Your task to perform on an android device: Go to calendar. Show me events next week Image 0: 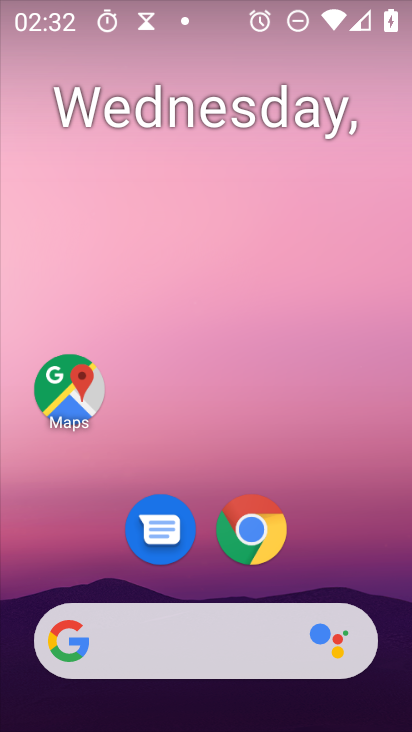
Step 0: drag from (160, 607) to (134, 8)
Your task to perform on an android device: Go to calendar. Show me events next week Image 1: 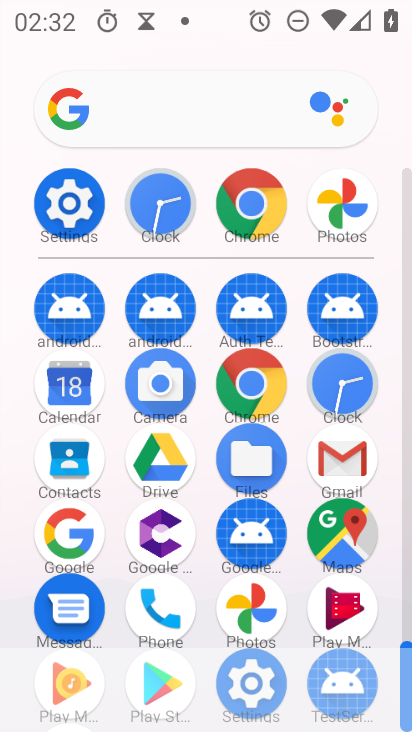
Step 1: click (81, 384)
Your task to perform on an android device: Go to calendar. Show me events next week Image 2: 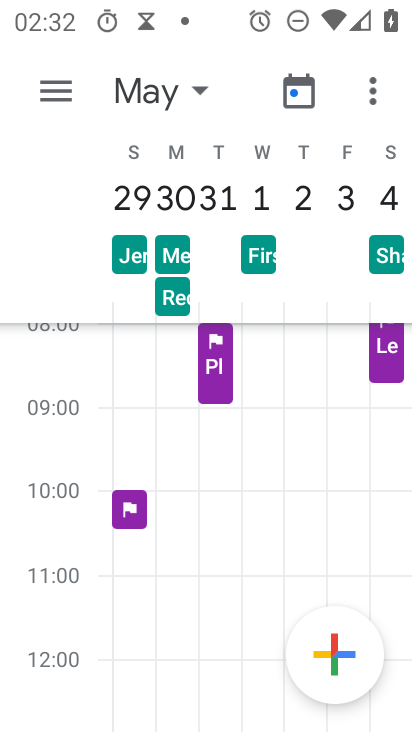
Step 2: click (196, 97)
Your task to perform on an android device: Go to calendar. Show me events next week Image 3: 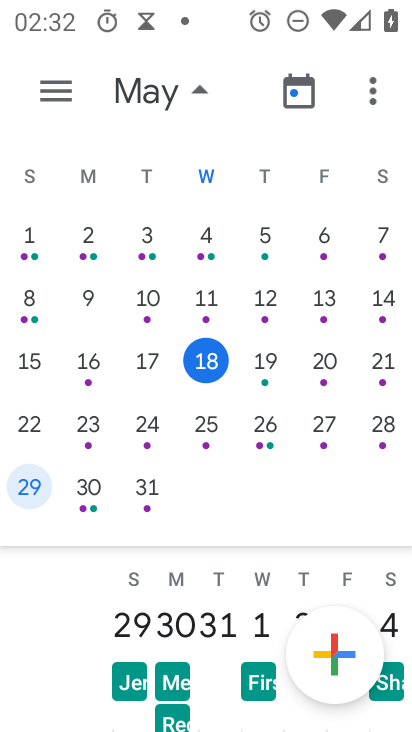
Step 3: click (263, 419)
Your task to perform on an android device: Go to calendar. Show me events next week Image 4: 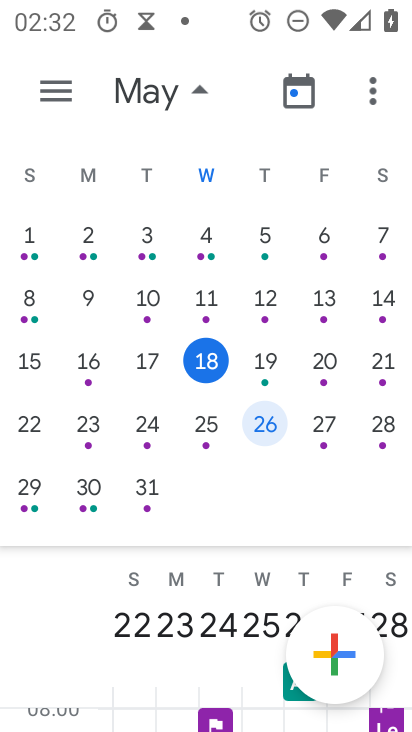
Step 4: click (64, 94)
Your task to perform on an android device: Go to calendar. Show me events next week Image 5: 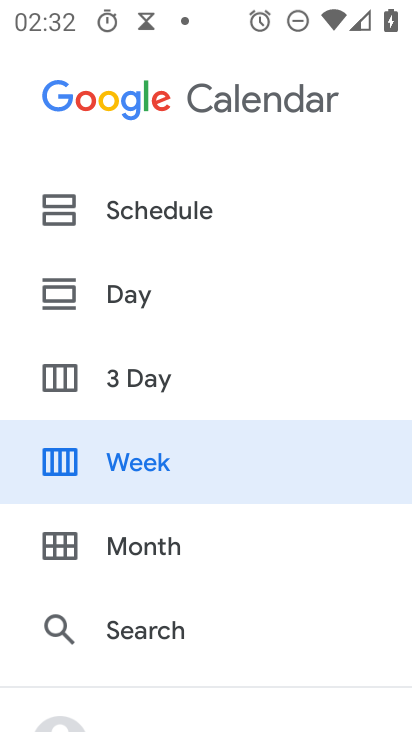
Step 5: click (164, 473)
Your task to perform on an android device: Go to calendar. Show me events next week Image 6: 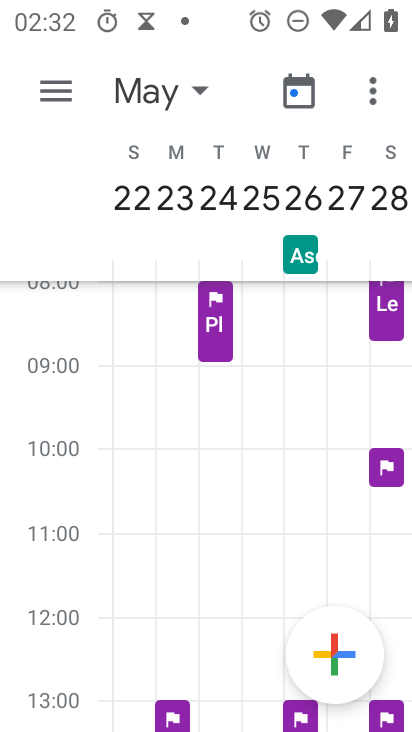
Step 6: task complete